Your task to perform on an android device: open app "Google Calendar" (install if not already installed) Image 0: 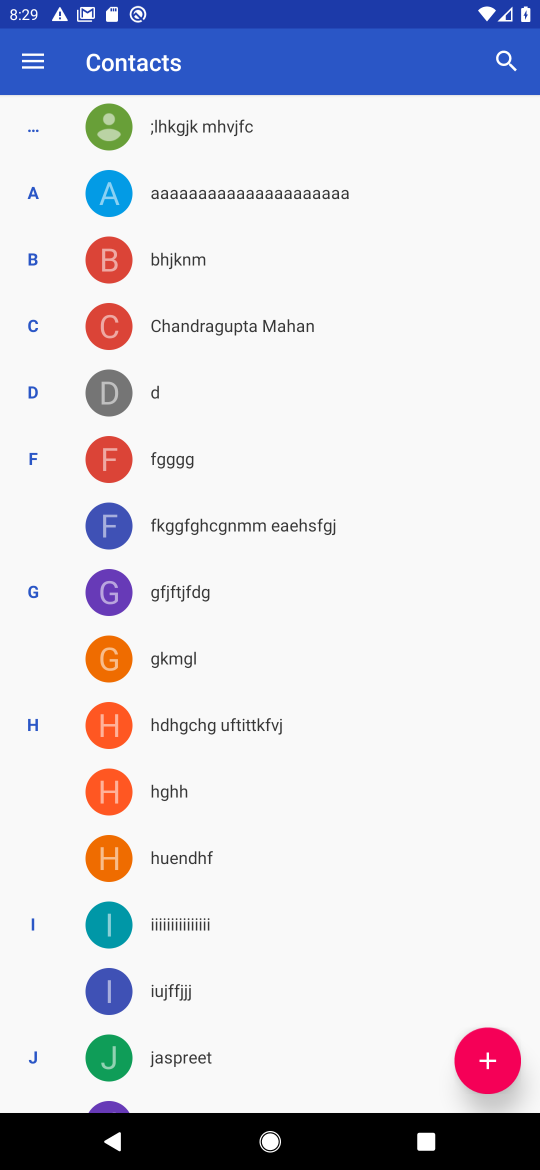
Step 0: press back button
Your task to perform on an android device: open app "Google Calendar" (install if not already installed) Image 1: 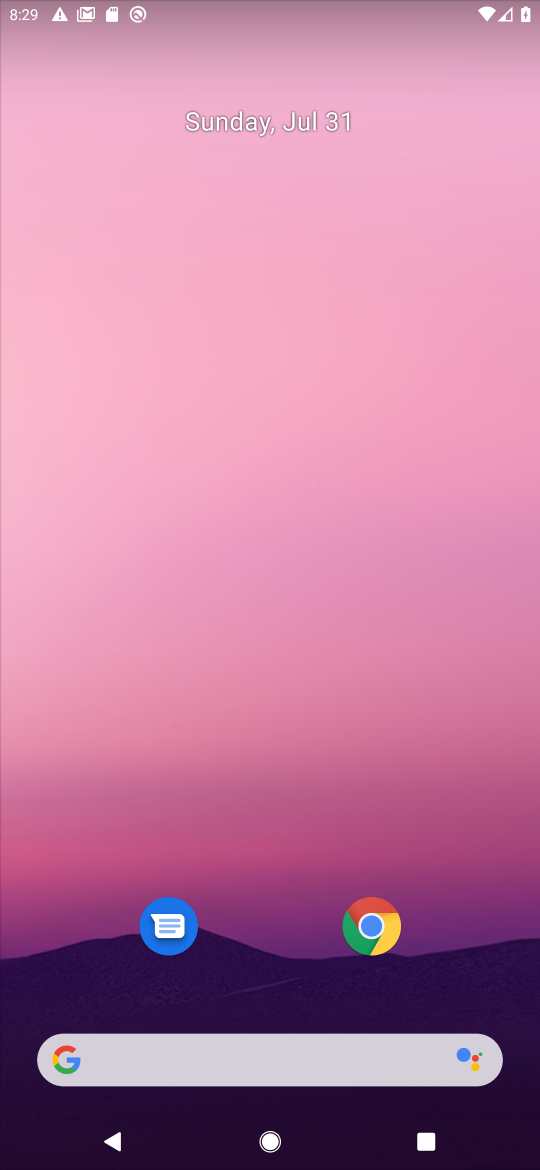
Step 1: drag from (146, 929) to (251, 67)
Your task to perform on an android device: open app "Google Calendar" (install if not already installed) Image 2: 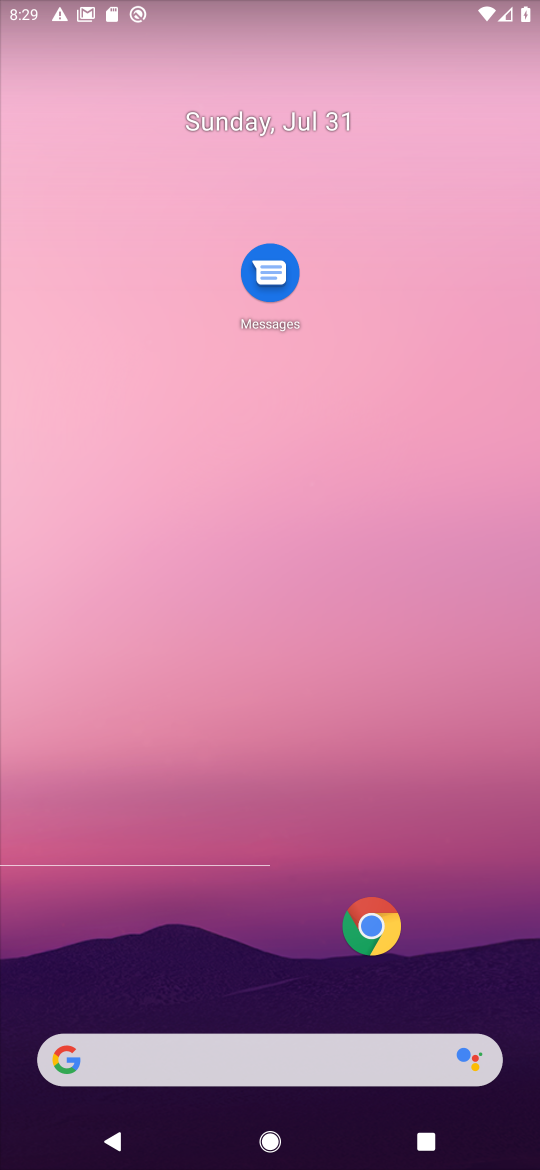
Step 2: drag from (88, 970) to (139, 60)
Your task to perform on an android device: open app "Google Calendar" (install if not already installed) Image 3: 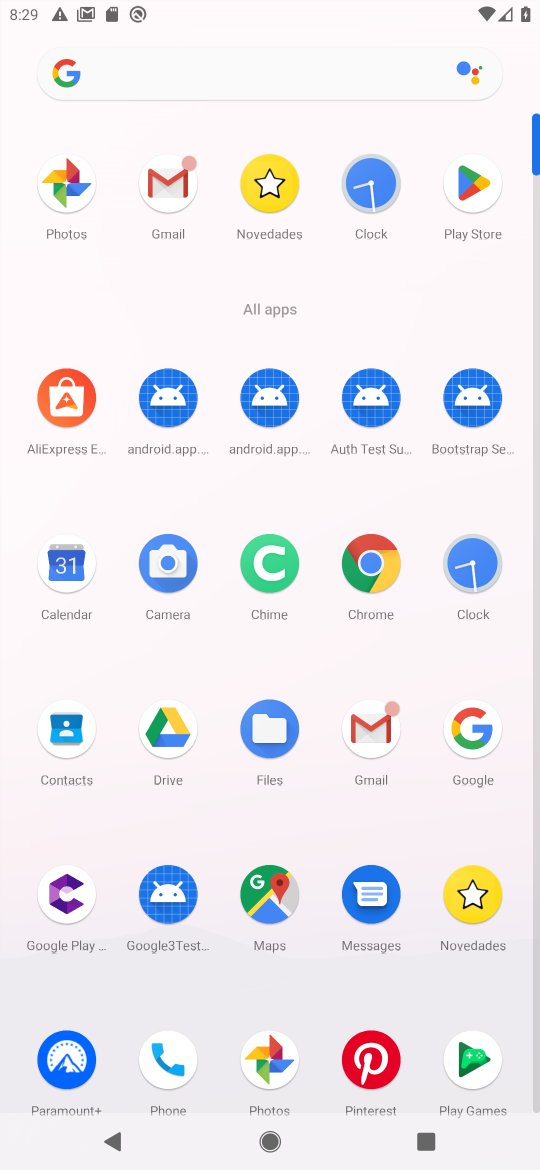
Step 3: click (60, 568)
Your task to perform on an android device: open app "Google Calendar" (install if not already installed) Image 4: 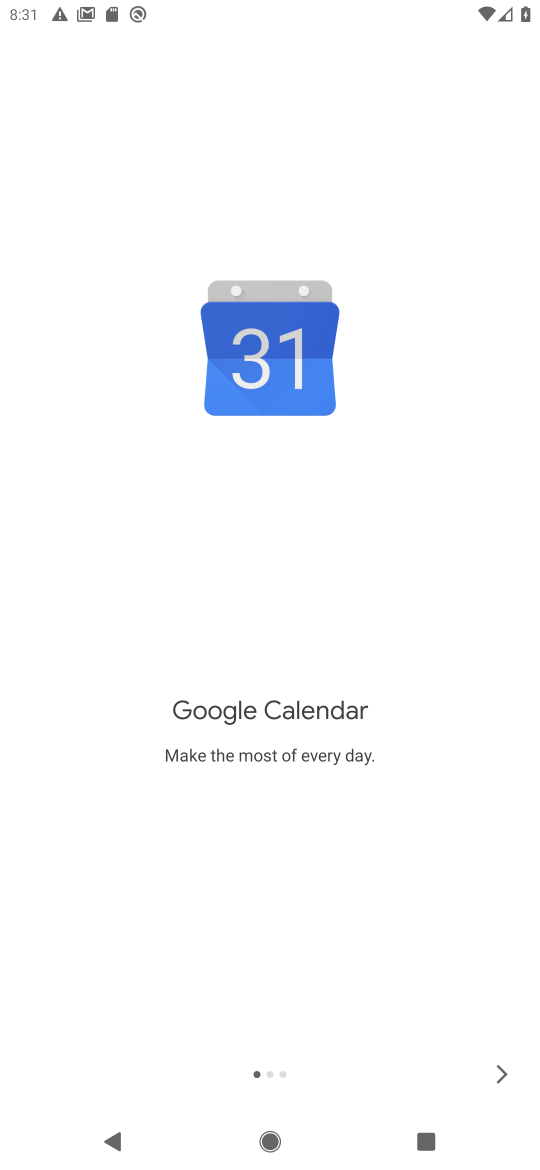
Step 4: task complete